Your task to perform on an android device: change the clock display to digital Image 0: 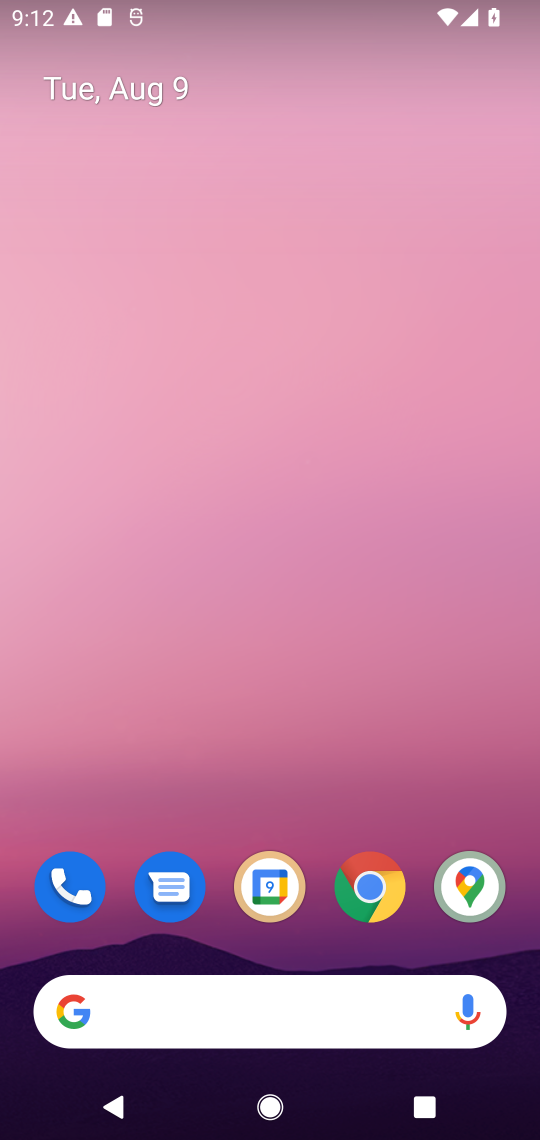
Step 0: drag from (306, 672) to (269, 68)
Your task to perform on an android device: change the clock display to digital Image 1: 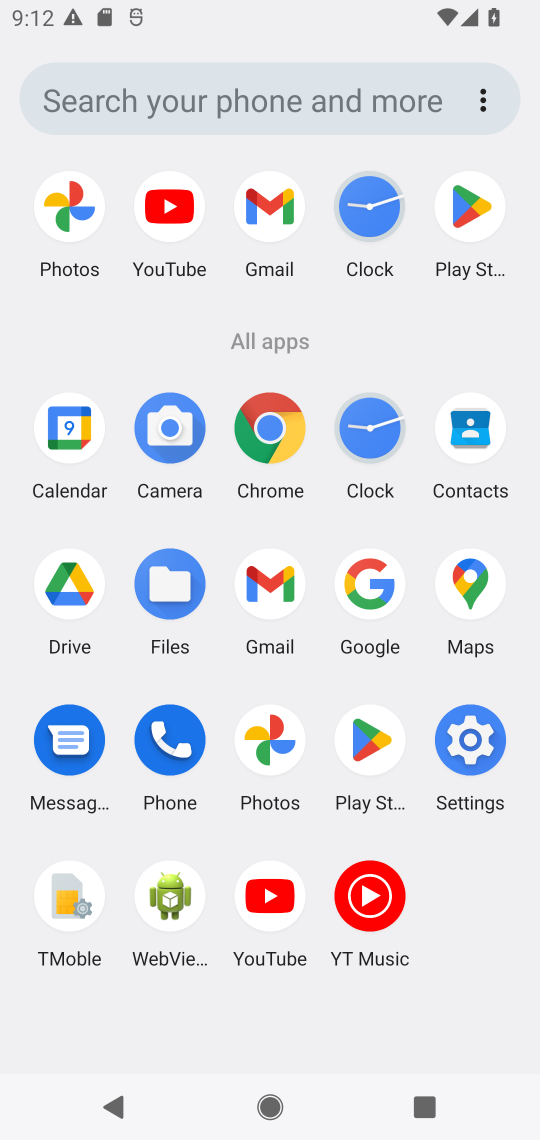
Step 1: click (359, 184)
Your task to perform on an android device: change the clock display to digital Image 2: 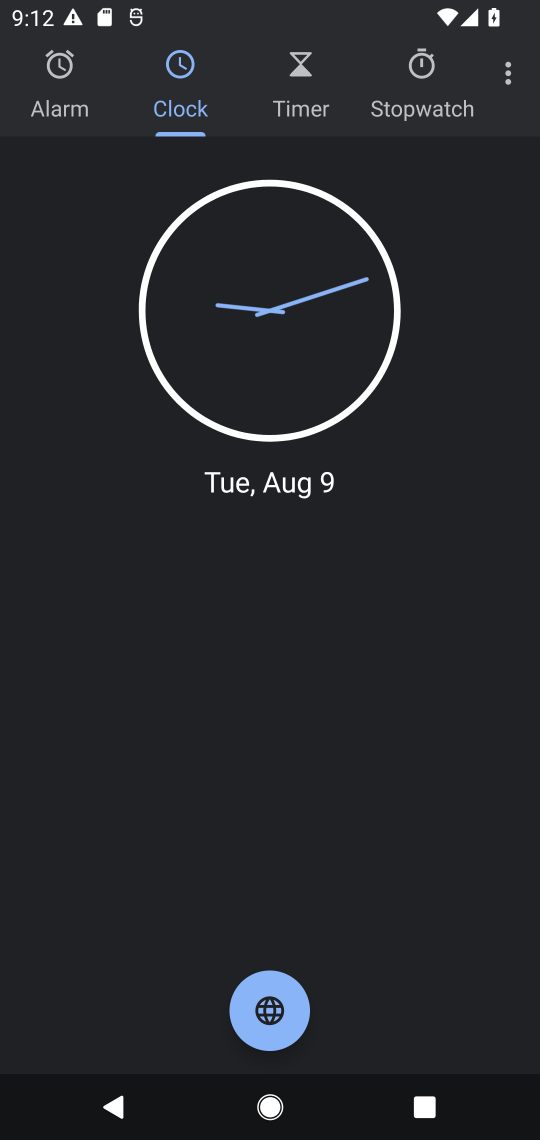
Step 2: click (505, 51)
Your task to perform on an android device: change the clock display to digital Image 3: 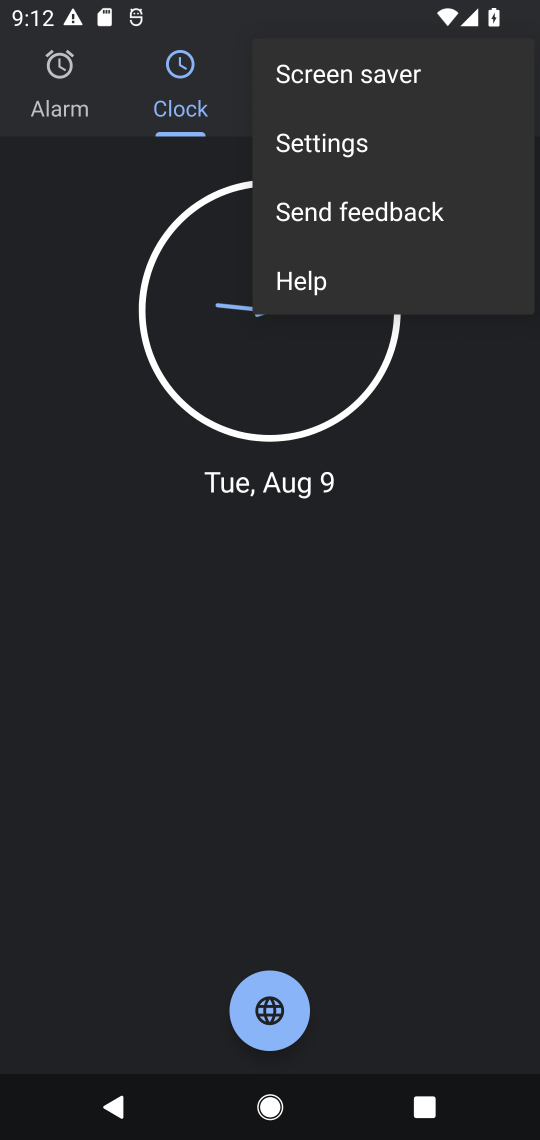
Step 3: click (354, 150)
Your task to perform on an android device: change the clock display to digital Image 4: 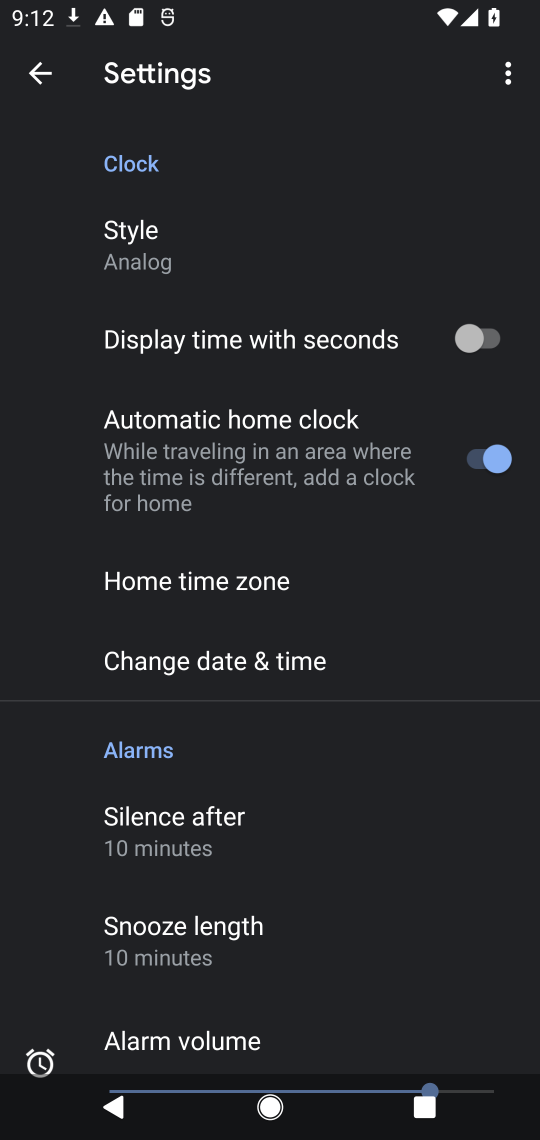
Step 4: click (159, 232)
Your task to perform on an android device: change the clock display to digital Image 5: 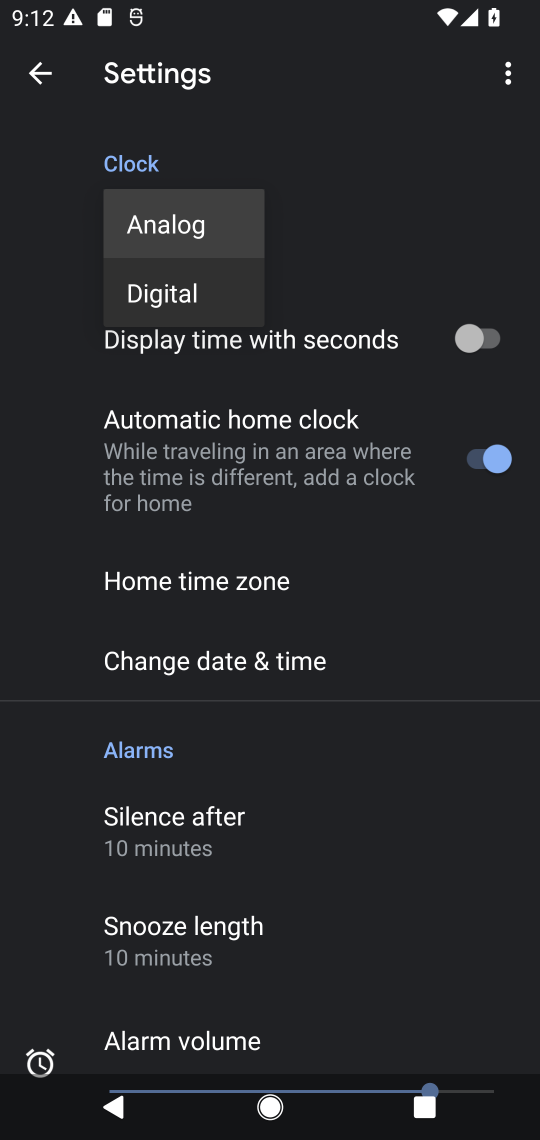
Step 5: click (198, 299)
Your task to perform on an android device: change the clock display to digital Image 6: 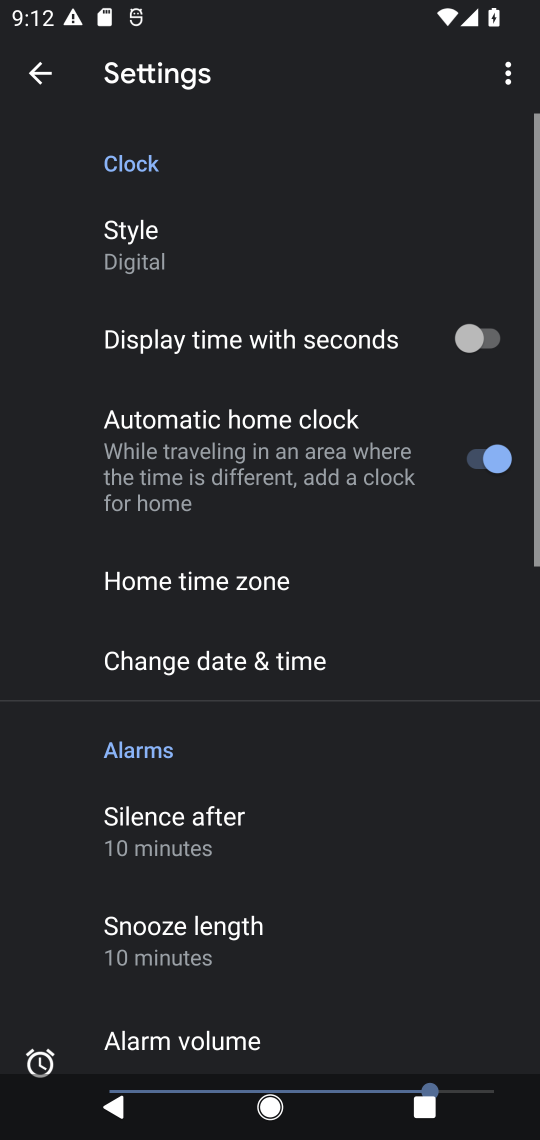
Step 6: task complete